Your task to perform on an android device: Open the Play Movies app and select the watchlist tab. Image 0: 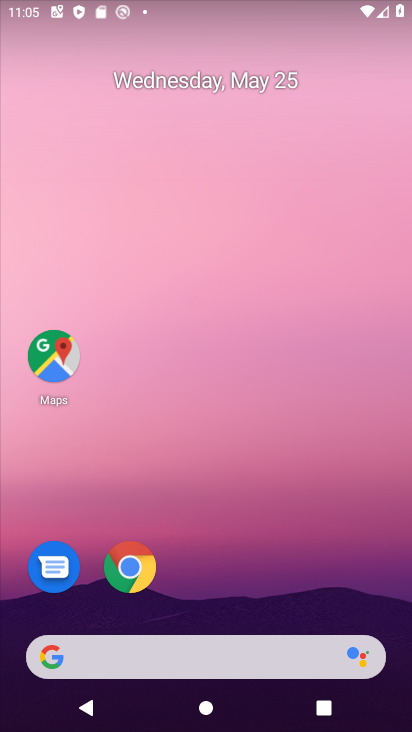
Step 0: drag from (255, 621) to (263, 0)
Your task to perform on an android device: Open the Play Movies app and select the watchlist tab. Image 1: 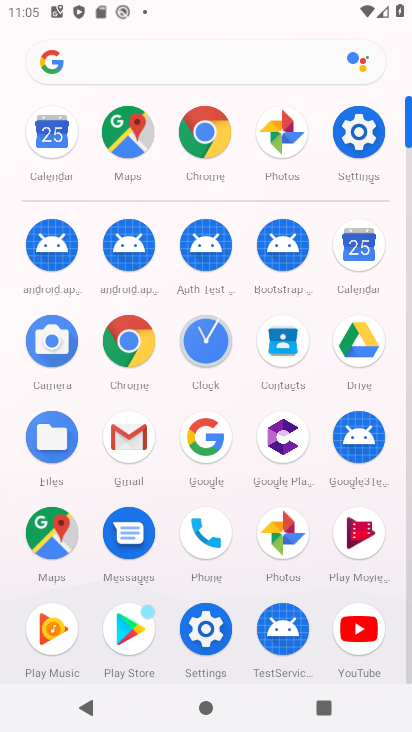
Step 1: click (367, 561)
Your task to perform on an android device: Open the Play Movies app and select the watchlist tab. Image 2: 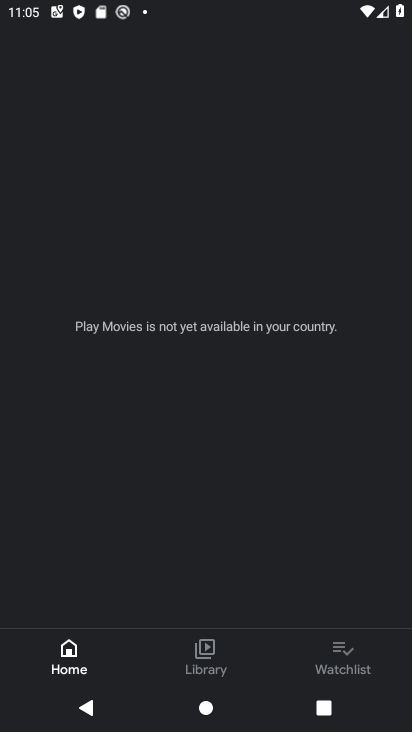
Step 2: click (334, 646)
Your task to perform on an android device: Open the Play Movies app and select the watchlist tab. Image 3: 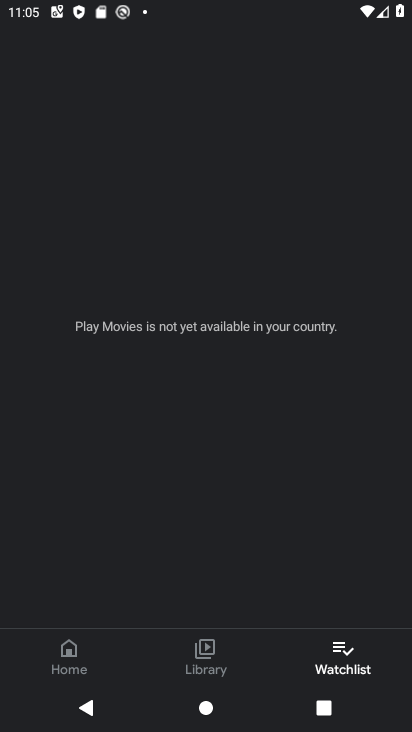
Step 3: task complete